Your task to perform on an android device: show emergency info Image 0: 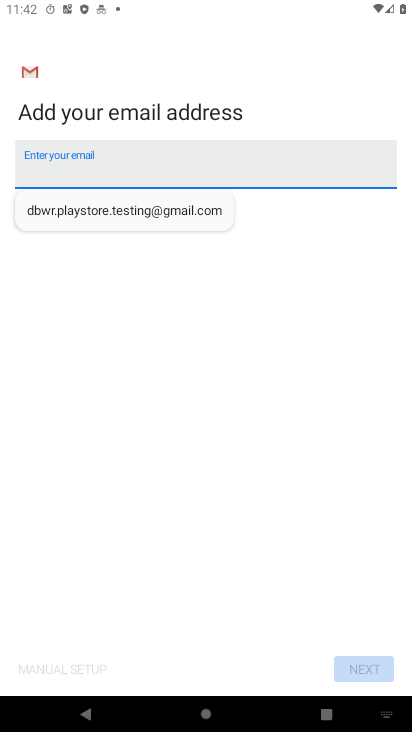
Step 0: press home button
Your task to perform on an android device: show emergency info Image 1: 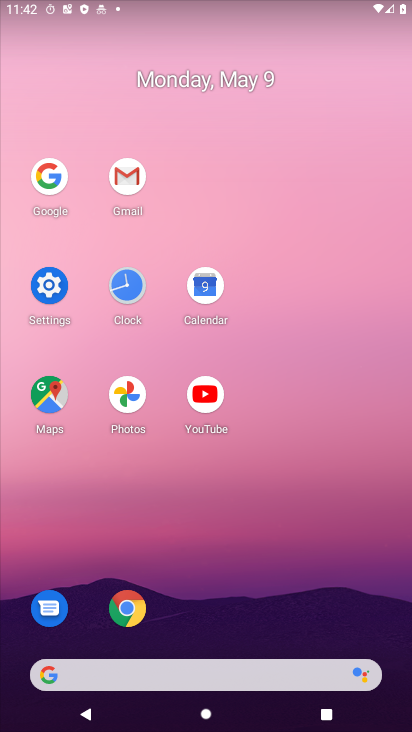
Step 1: click (46, 296)
Your task to perform on an android device: show emergency info Image 2: 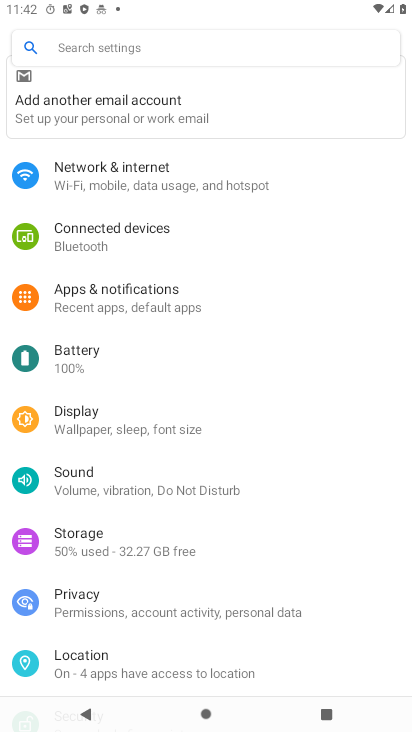
Step 2: drag from (264, 651) to (356, 187)
Your task to perform on an android device: show emergency info Image 3: 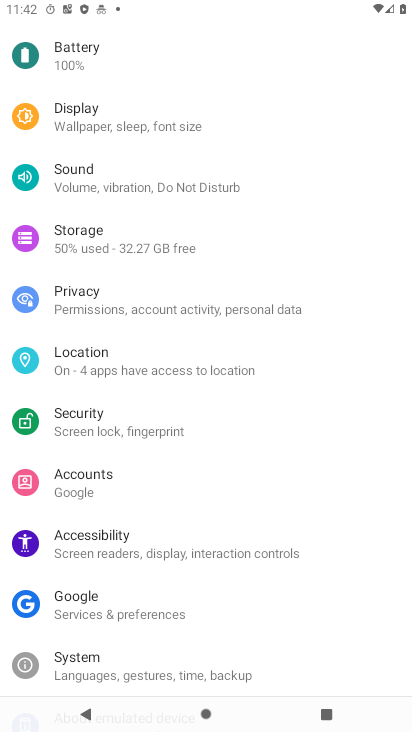
Step 3: drag from (237, 629) to (291, 227)
Your task to perform on an android device: show emergency info Image 4: 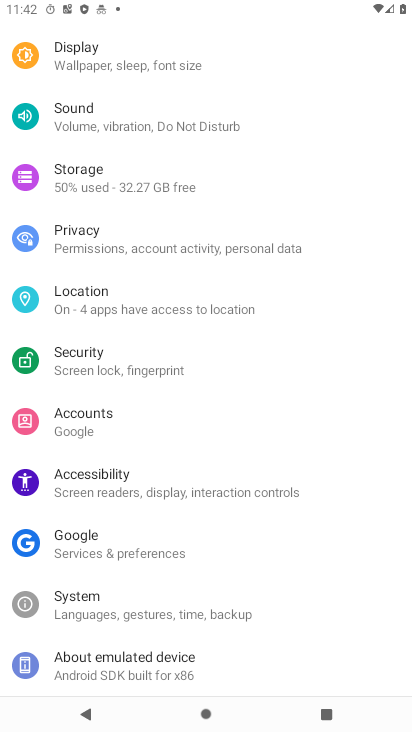
Step 4: click (171, 664)
Your task to perform on an android device: show emergency info Image 5: 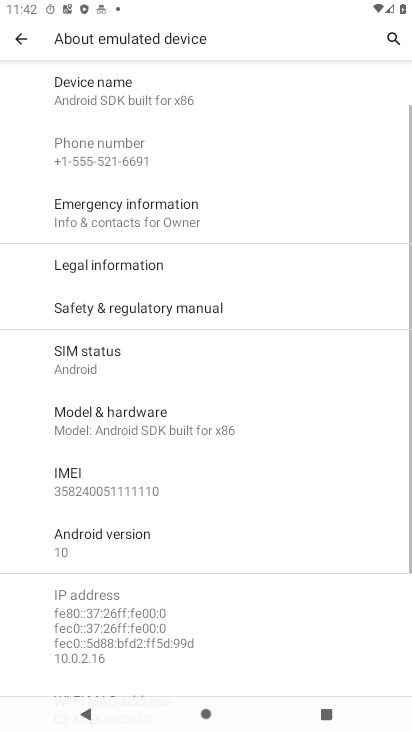
Step 5: click (156, 209)
Your task to perform on an android device: show emergency info Image 6: 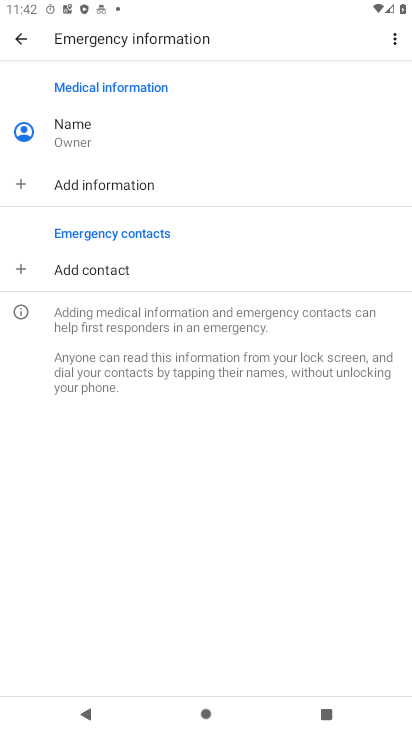
Step 6: task complete